Your task to perform on an android device: Turn off the flashlight Image 0: 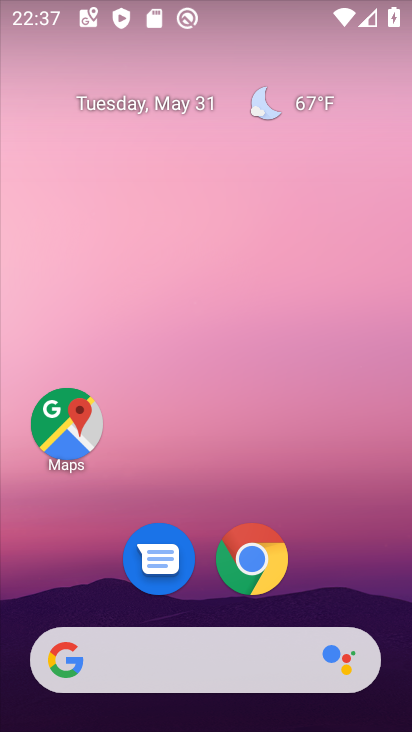
Step 0: drag from (299, 331) to (276, 61)
Your task to perform on an android device: Turn off the flashlight Image 1: 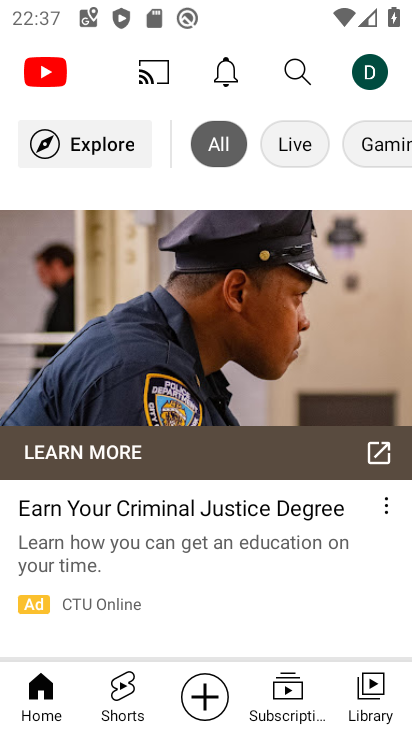
Step 1: press home button
Your task to perform on an android device: Turn off the flashlight Image 2: 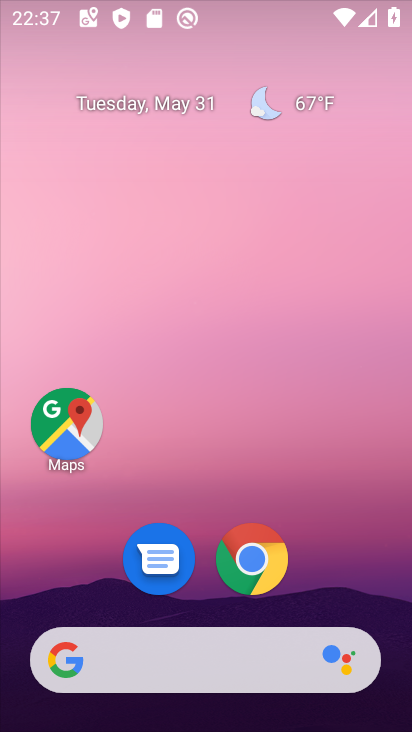
Step 2: drag from (343, 551) to (312, 57)
Your task to perform on an android device: Turn off the flashlight Image 3: 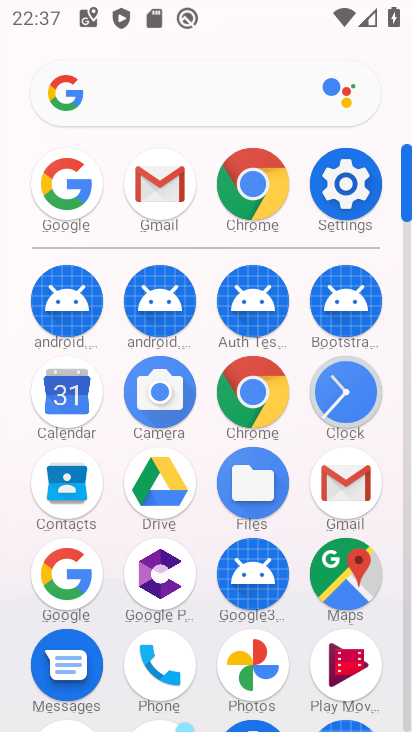
Step 3: click (340, 191)
Your task to perform on an android device: Turn off the flashlight Image 4: 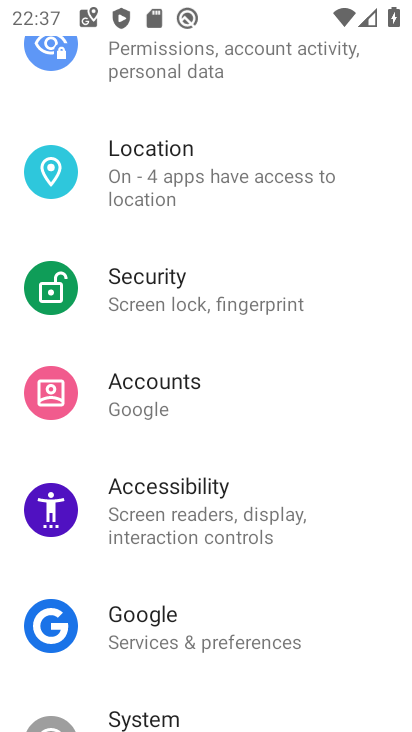
Step 4: drag from (202, 130) to (230, 706)
Your task to perform on an android device: Turn off the flashlight Image 5: 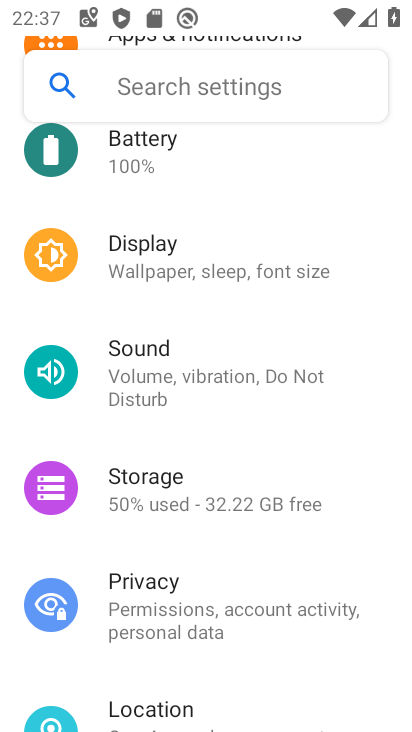
Step 5: click (161, 104)
Your task to perform on an android device: Turn off the flashlight Image 6: 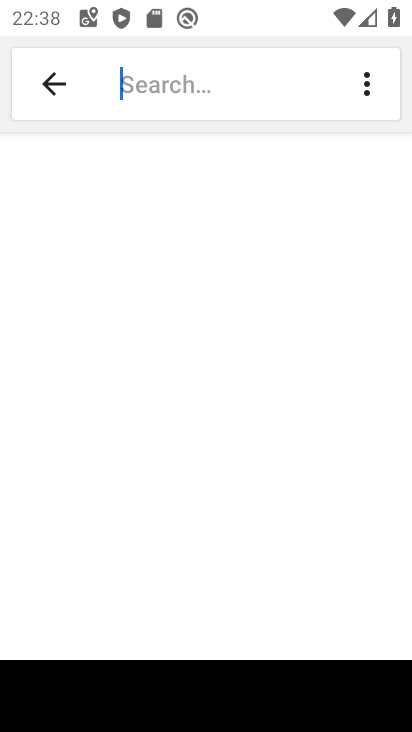
Step 6: type "flash"
Your task to perform on an android device: Turn off the flashlight Image 7: 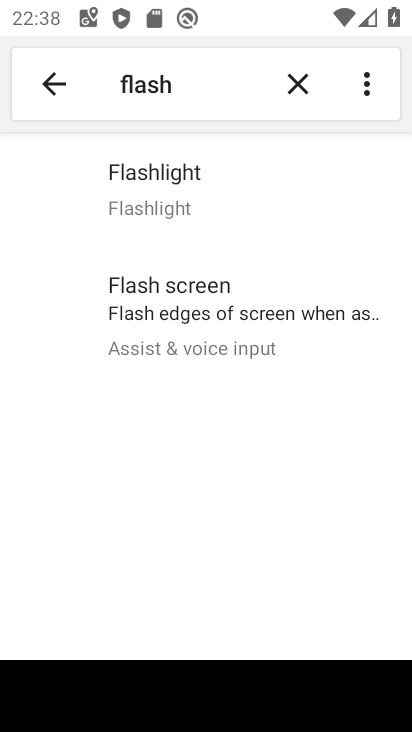
Step 7: task complete